Your task to perform on an android device: Open internet settings Image 0: 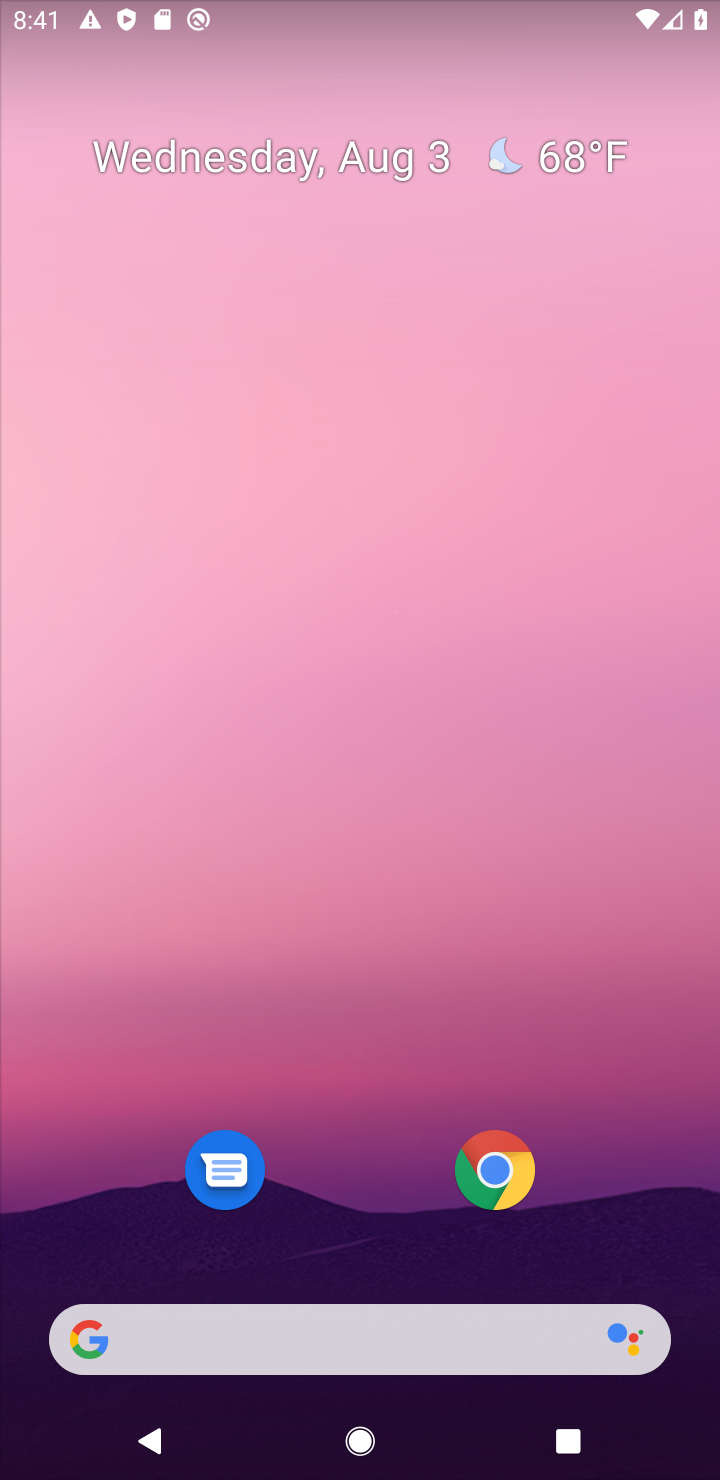
Step 0: drag from (625, 1140) to (572, 405)
Your task to perform on an android device: Open internet settings Image 1: 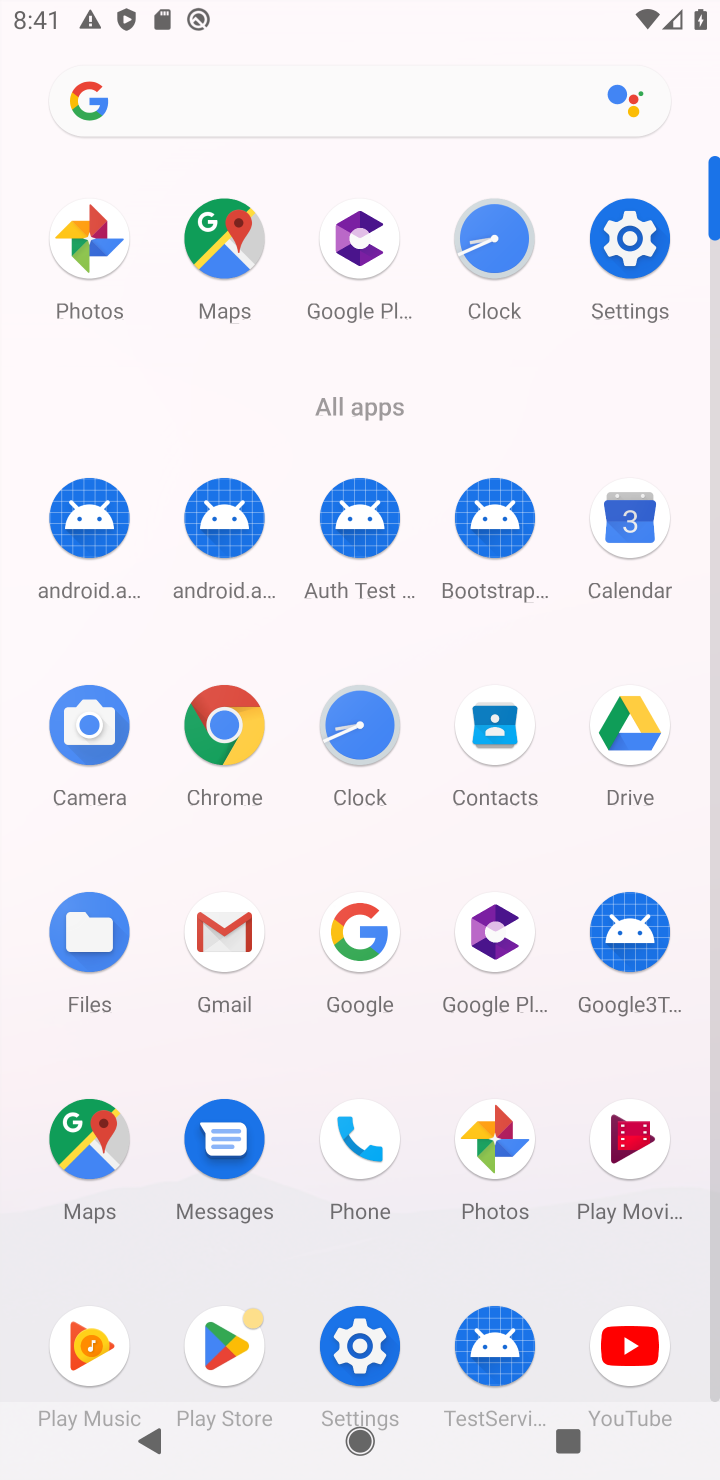
Step 1: click (361, 1348)
Your task to perform on an android device: Open internet settings Image 2: 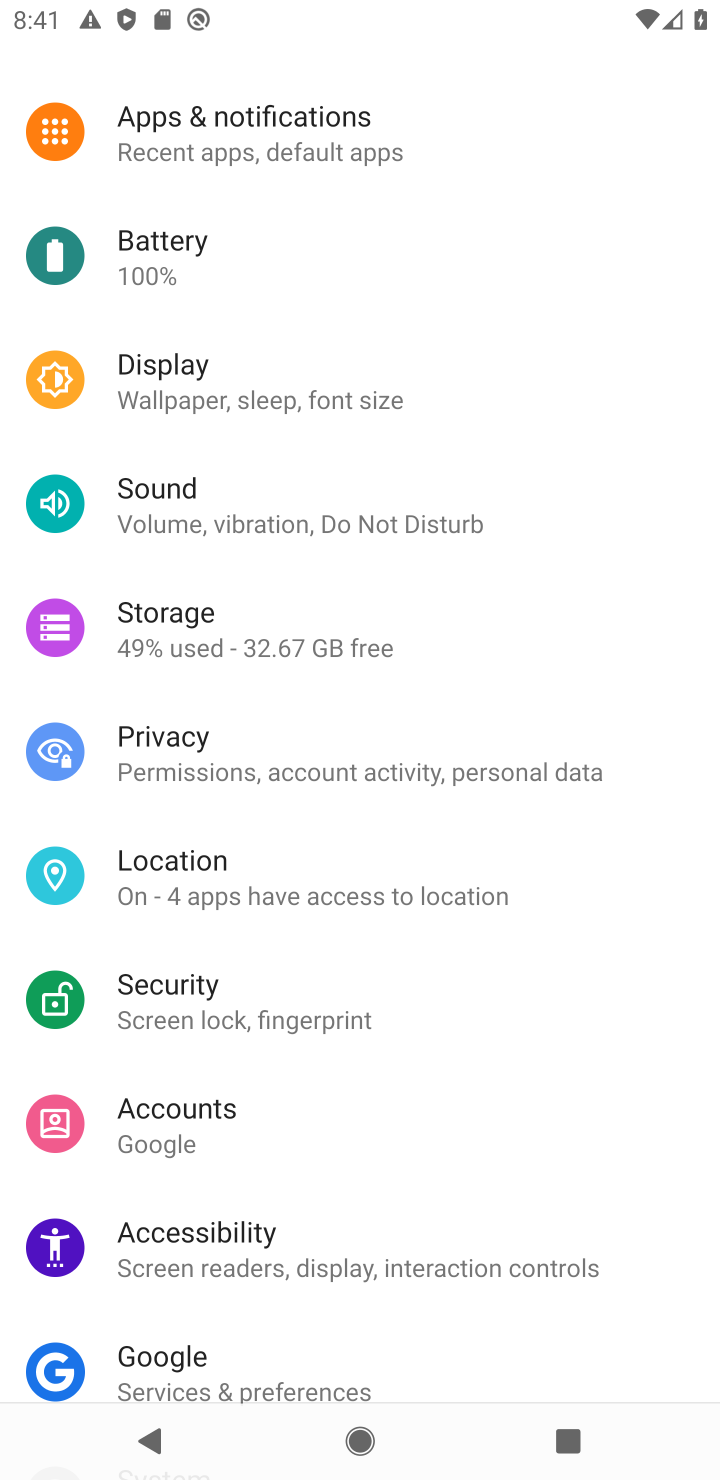
Step 2: drag from (538, 303) to (568, 888)
Your task to perform on an android device: Open internet settings Image 3: 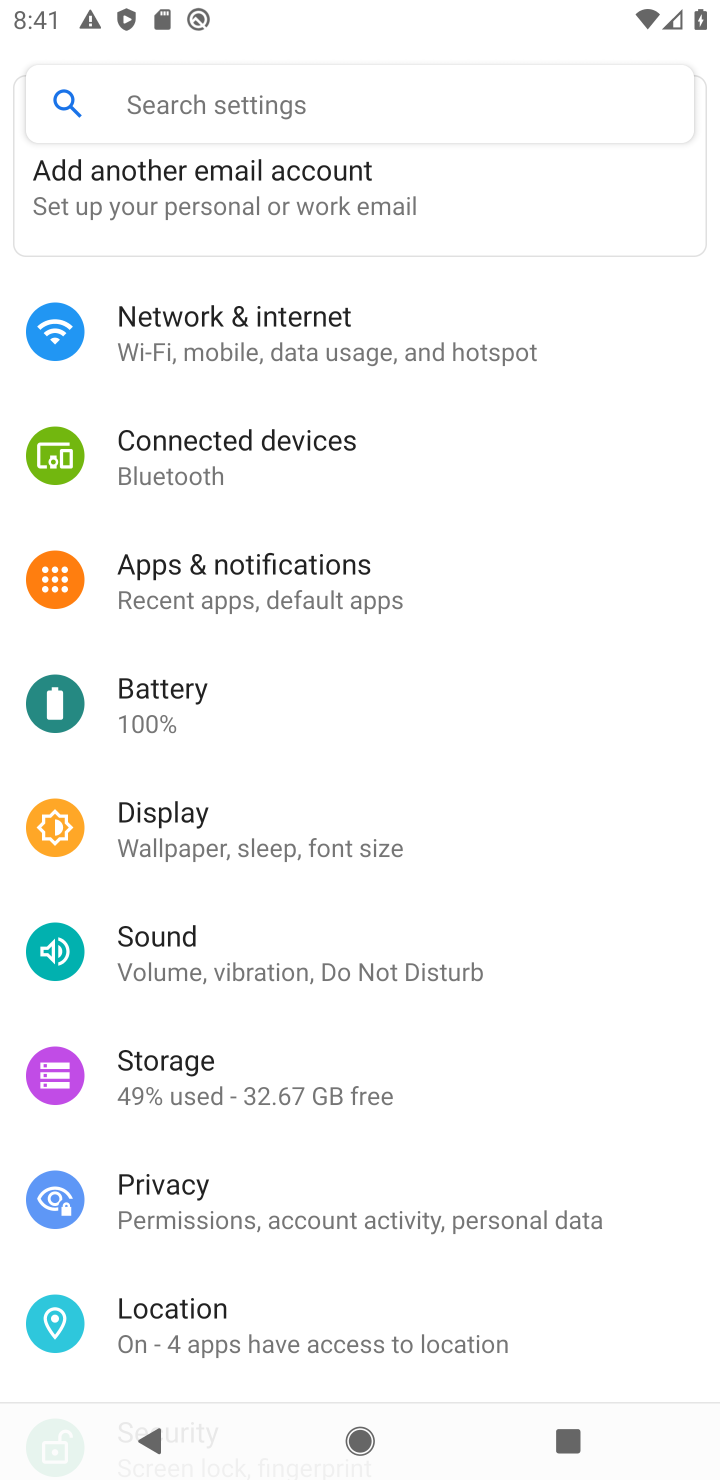
Step 3: click (225, 321)
Your task to perform on an android device: Open internet settings Image 4: 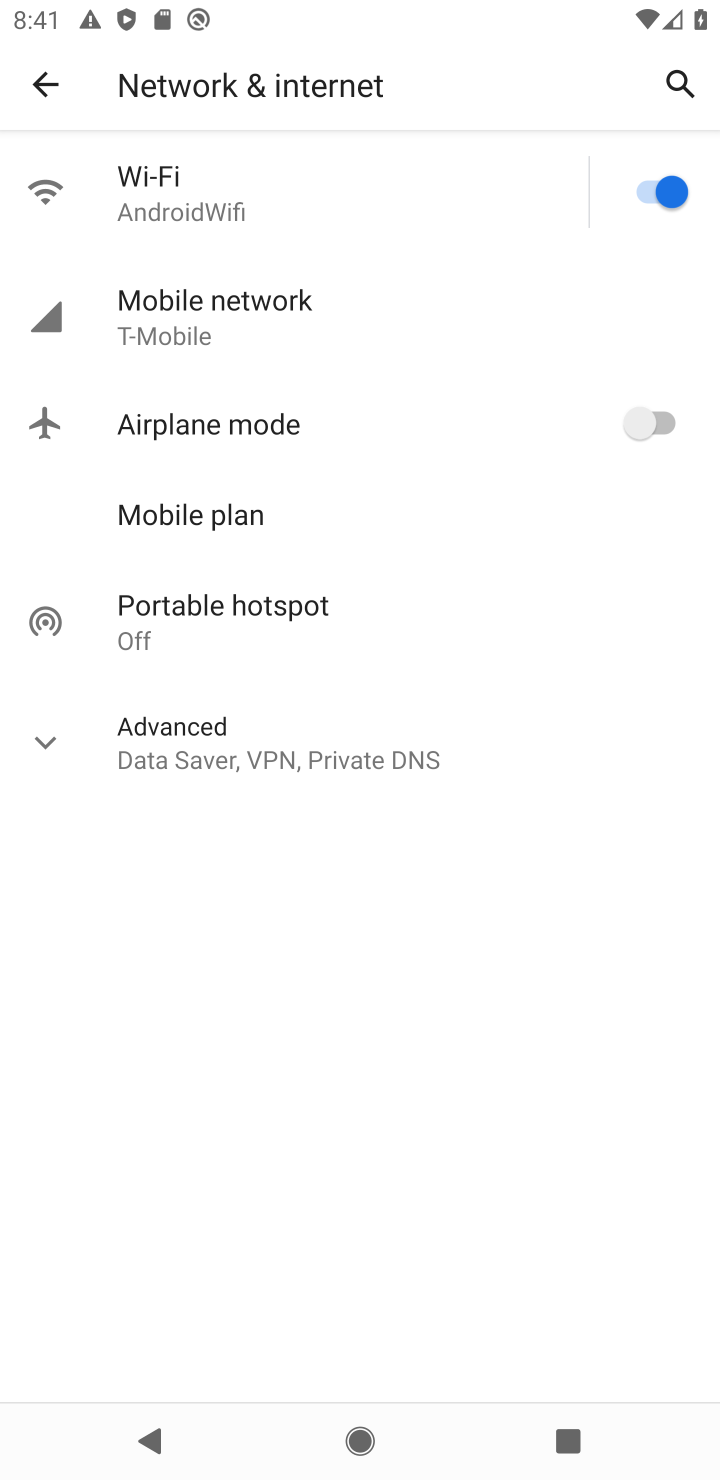
Step 4: click (144, 201)
Your task to perform on an android device: Open internet settings Image 5: 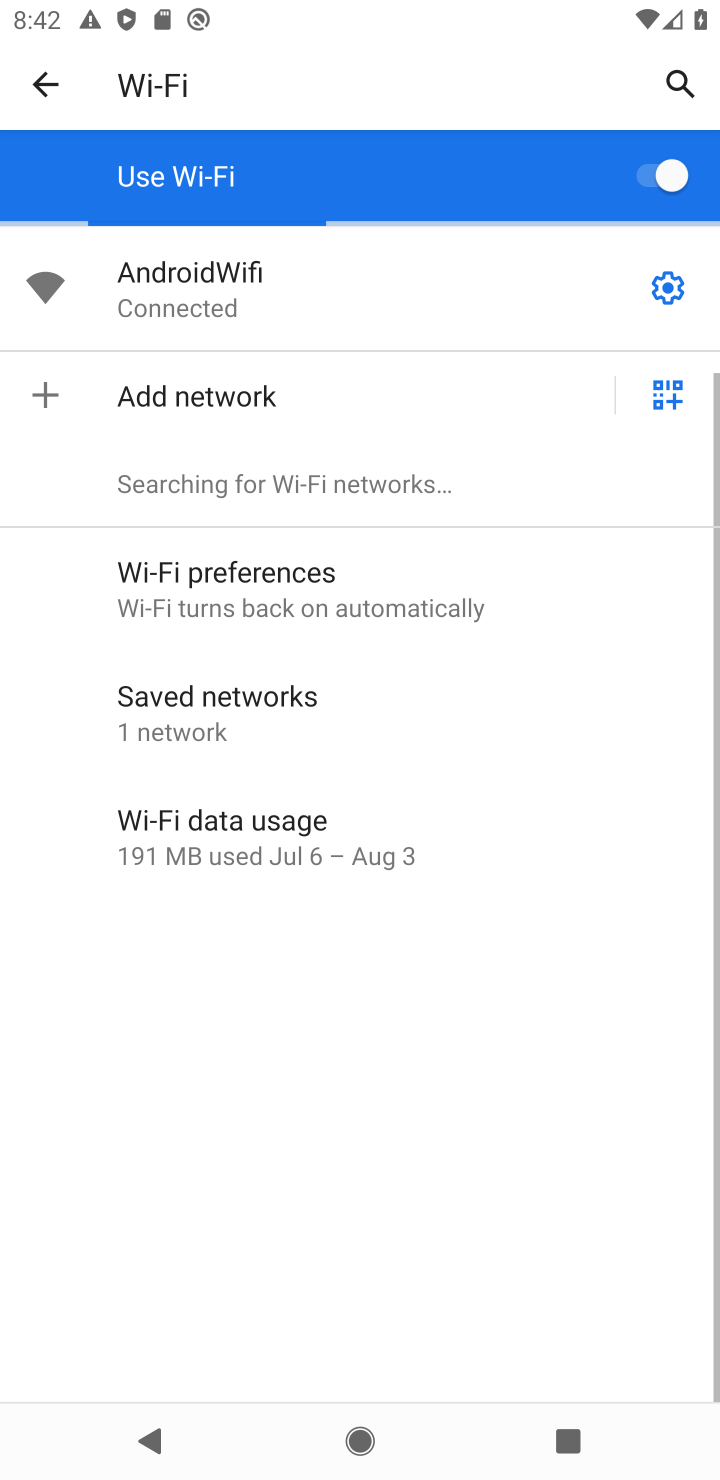
Step 5: task complete